Your task to perform on an android device: allow cookies in the chrome app Image 0: 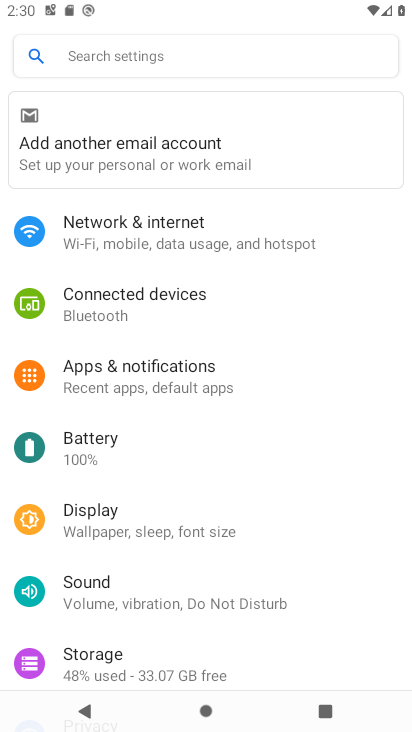
Step 0: drag from (201, 619) to (280, 230)
Your task to perform on an android device: allow cookies in the chrome app Image 1: 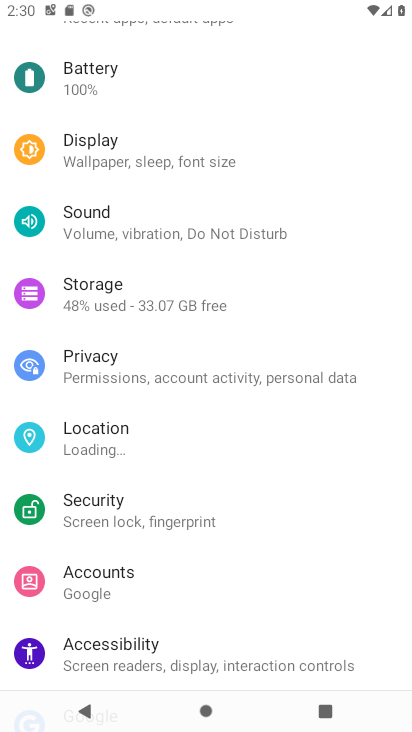
Step 1: press home button
Your task to perform on an android device: allow cookies in the chrome app Image 2: 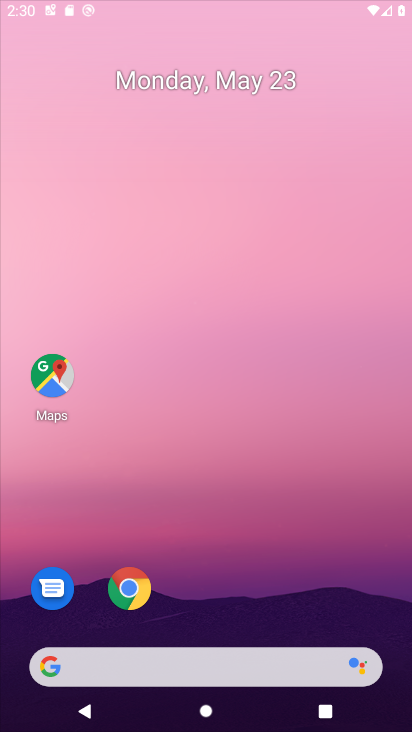
Step 2: drag from (164, 612) to (236, 282)
Your task to perform on an android device: allow cookies in the chrome app Image 3: 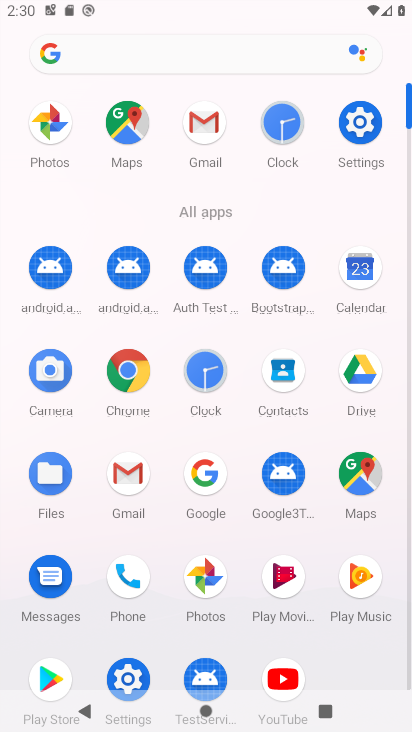
Step 3: click (123, 377)
Your task to perform on an android device: allow cookies in the chrome app Image 4: 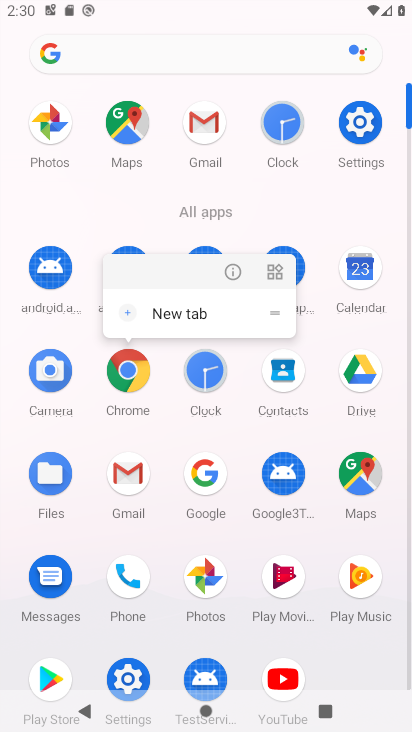
Step 4: click (227, 273)
Your task to perform on an android device: allow cookies in the chrome app Image 5: 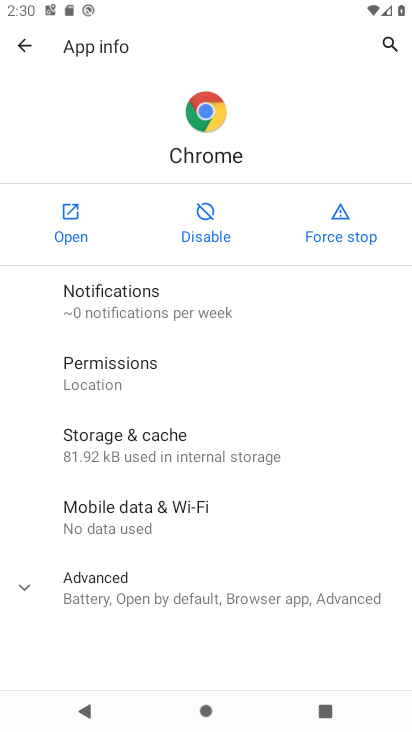
Step 5: click (68, 218)
Your task to perform on an android device: allow cookies in the chrome app Image 6: 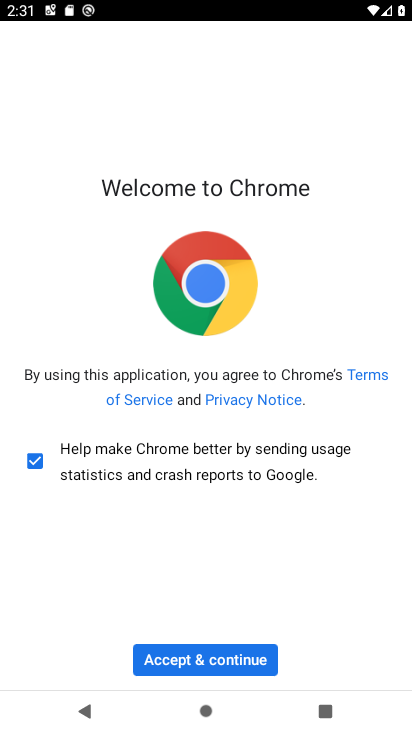
Step 6: click (211, 655)
Your task to perform on an android device: allow cookies in the chrome app Image 7: 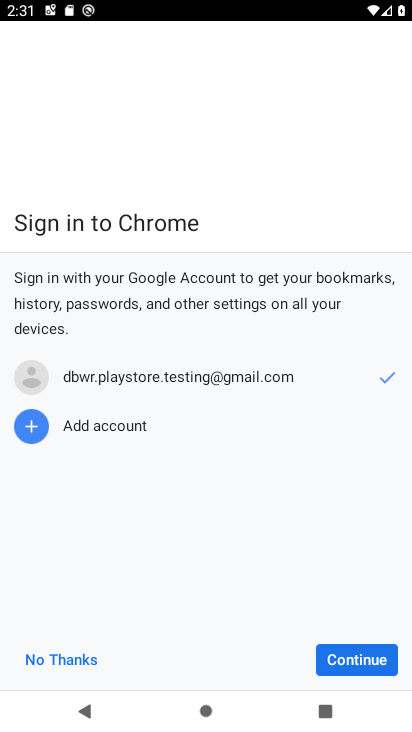
Step 7: click (362, 665)
Your task to perform on an android device: allow cookies in the chrome app Image 8: 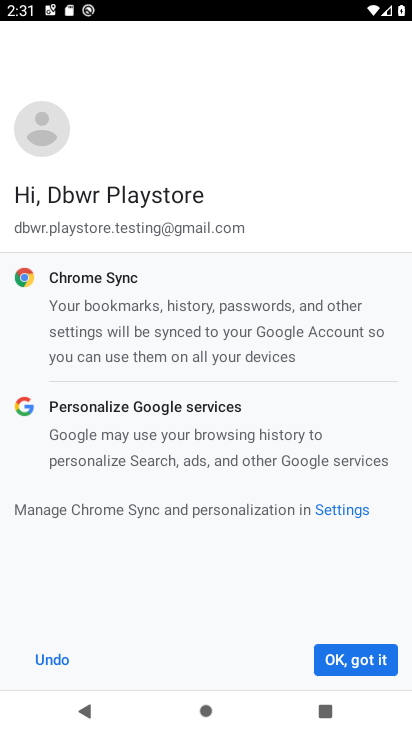
Step 8: click (330, 659)
Your task to perform on an android device: allow cookies in the chrome app Image 9: 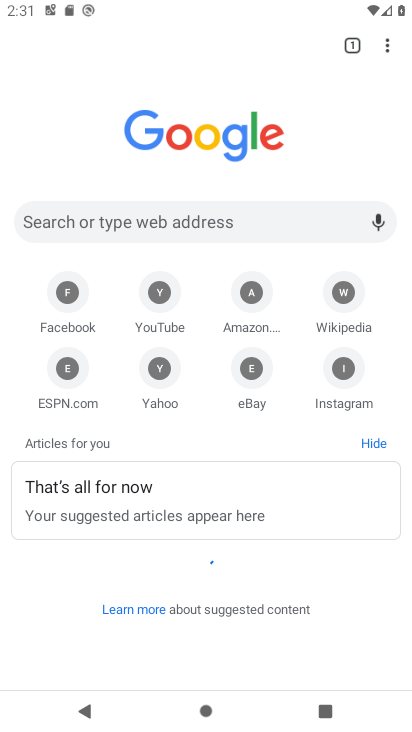
Step 9: click (388, 42)
Your task to perform on an android device: allow cookies in the chrome app Image 10: 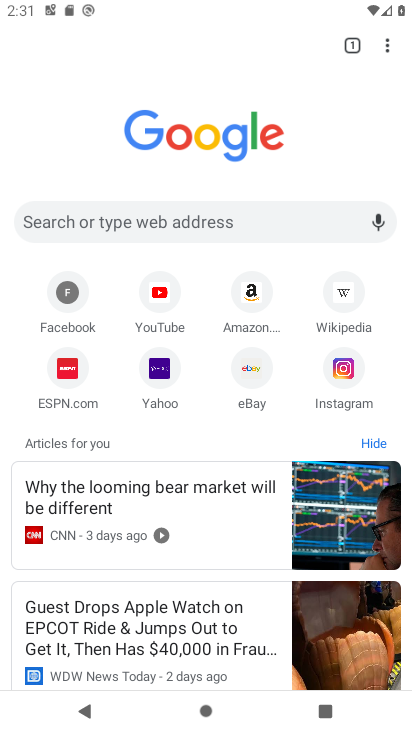
Step 10: click (386, 49)
Your task to perform on an android device: allow cookies in the chrome app Image 11: 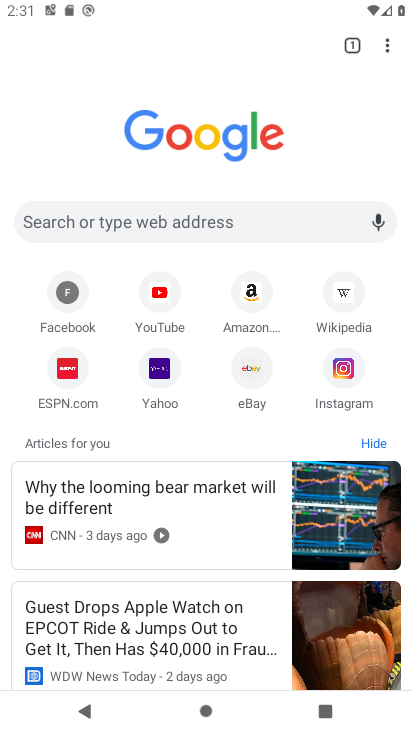
Step 11: click (387, 50)
Your task to perform on an android device: allow cookies in the chrome app Image 12: 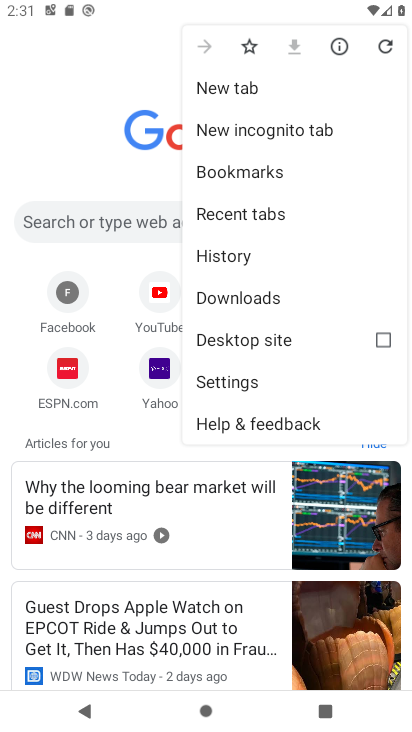
Step 12: click (242, 384)
Your task to perform on an android device: allow cookies in the chrome app Image 13: 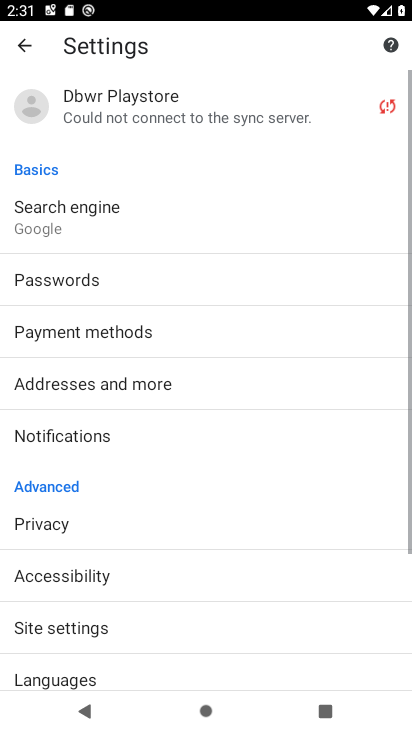
Step 13: drag from (134, 556) to (206, 299)
Your task to perform on an android device: allow cookies in the chrome app Image 14: 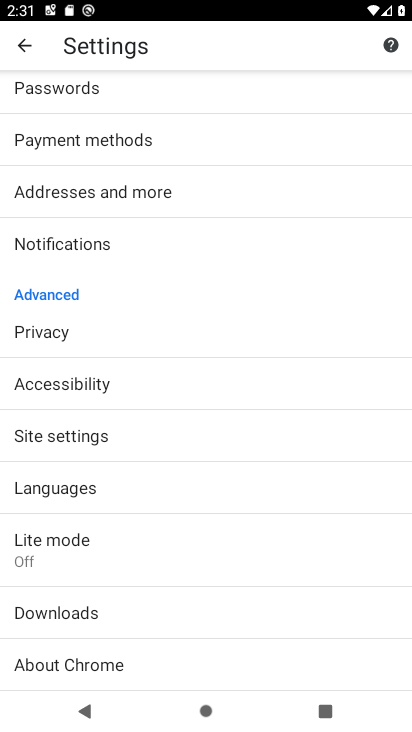
Step 14: drag from (119, 498) to (204, 313)
Your task to perform on an android device: allow cookies in the chrome app Image 15: 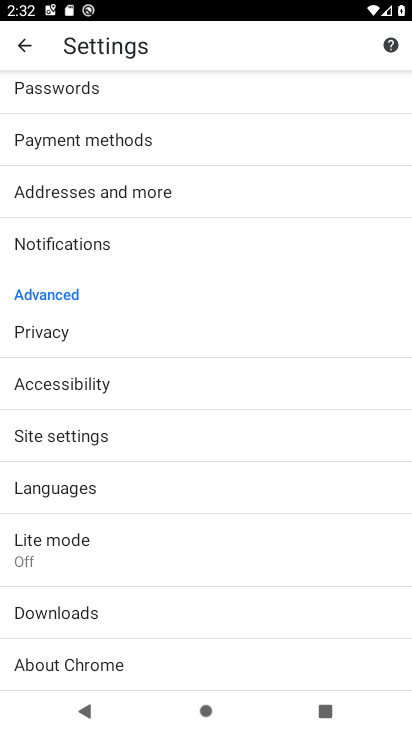
Step 15: click (137, 429)
Your task to perform on an android device: allow cookies in the chrome app Image 16: 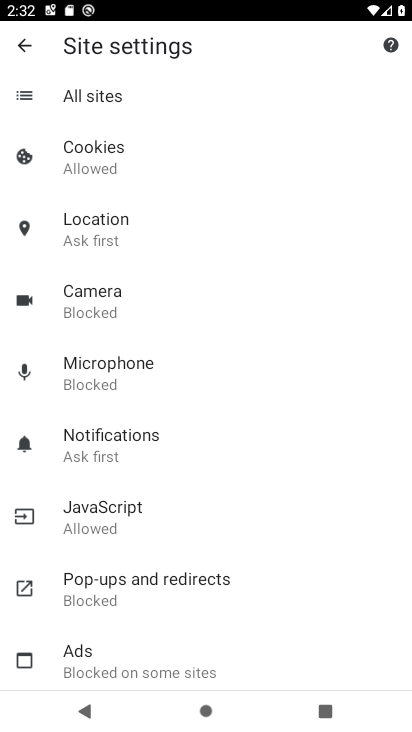
Step 16: click (158, 166)
Your task to perform on an android device: allow cookies in the chrome app Image 17: 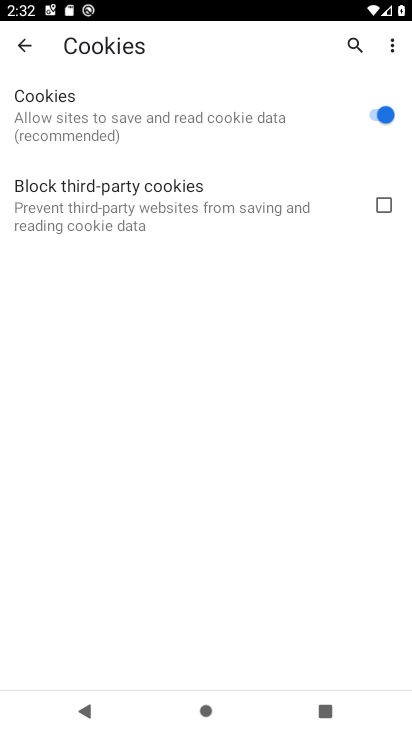
Step 17: task complete